Your task to perform on an android device: Do I have any events today? Image 0: 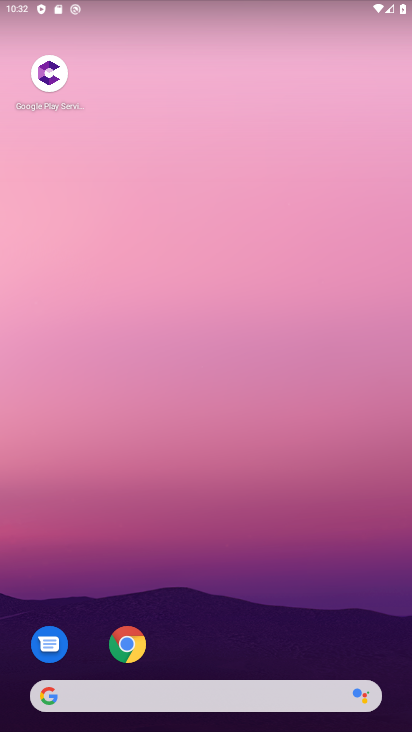
Step 0: drag from (30, 474) to (188, 228)
Your task to perform on an android device: Do I have any events today? Image 1: 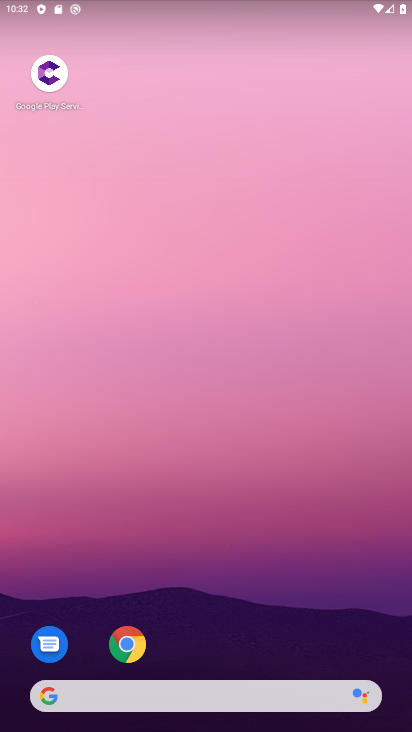
Step 1: drag from (34, 540) to (330, 100)
Your task to perform on an android device: Do I have any events today? Image 2: 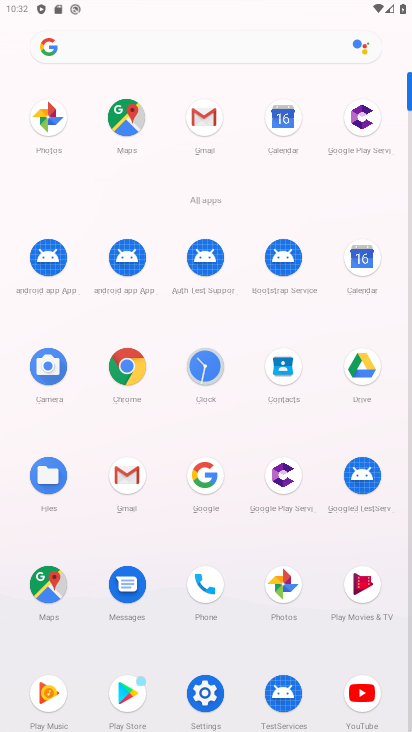
Step 2: click (362, 256)
Your task to perform on an android device: Do I have any events today? Image 3: 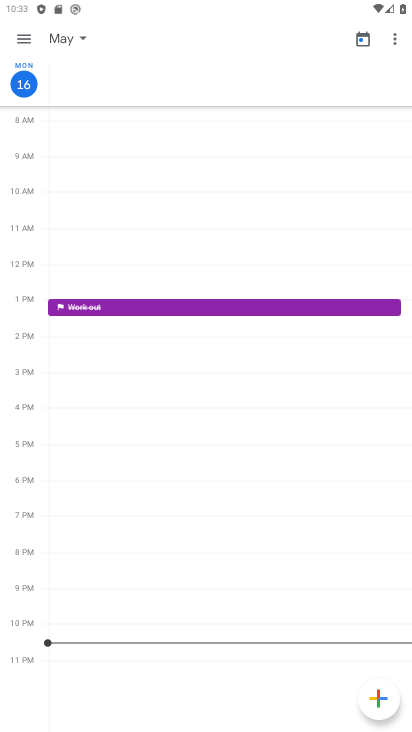
Step 3: click (52, 29)
Your task to perform on an android device: Do I have any events today? Image 4: 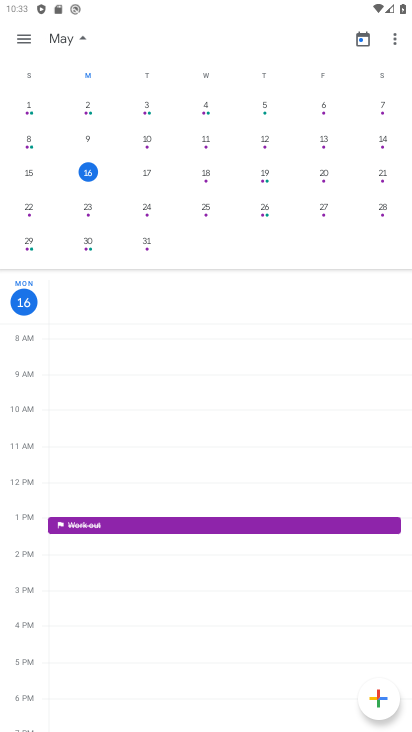
Step 4: click (96, 171)
Your task to perform on an android device: Do I have any events today? Image 5: 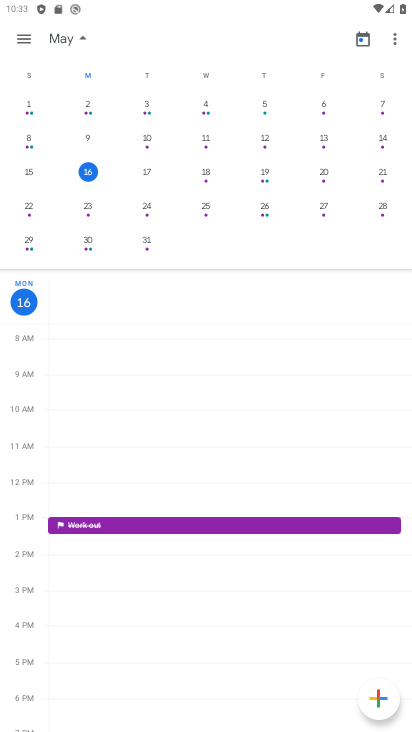
Step 5: click (94, 170)
Your task to perform on an android device: Do I have any events today? Image 6: 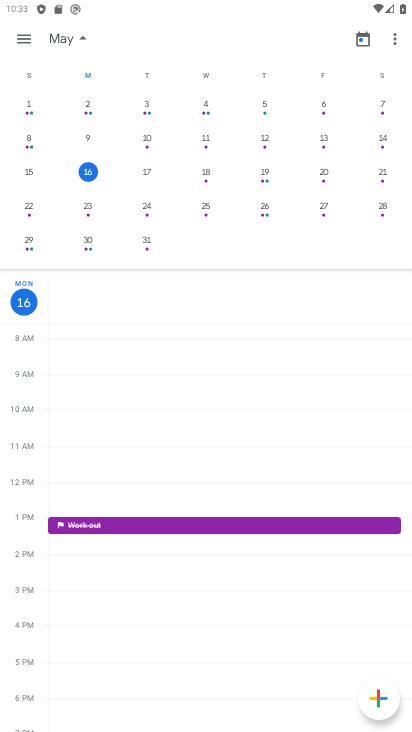
Step 6: click (94, 170)
Your task to perform on an android device: Do I have any events today? Image 7: 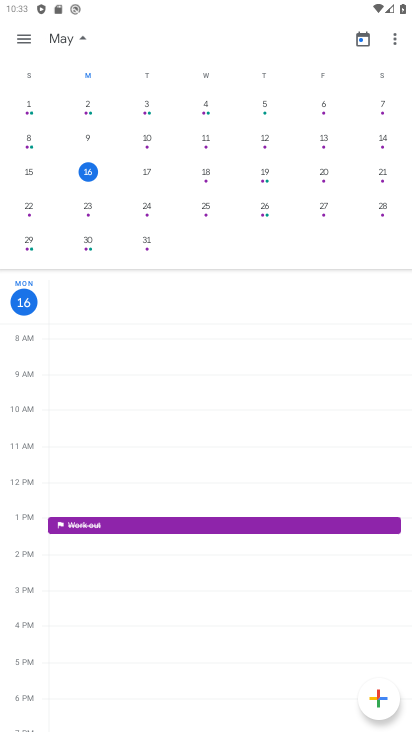
Step 7: task complete